Your task to perform on an android device: change the clock display to analog Image 0: 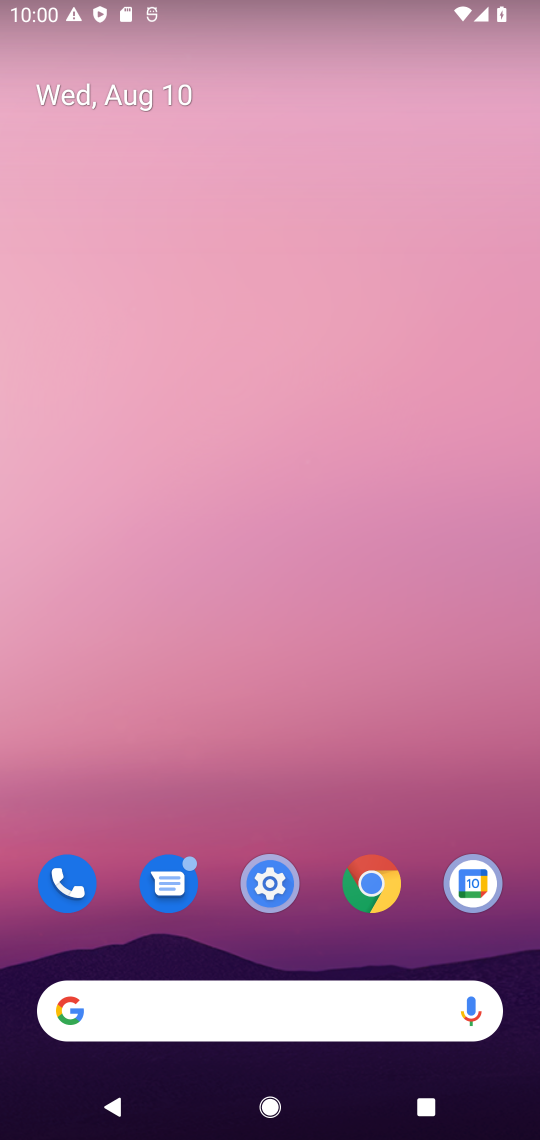
Step 0: press home button
Your task to perform on an android device: change the clock display to analog Image 1: 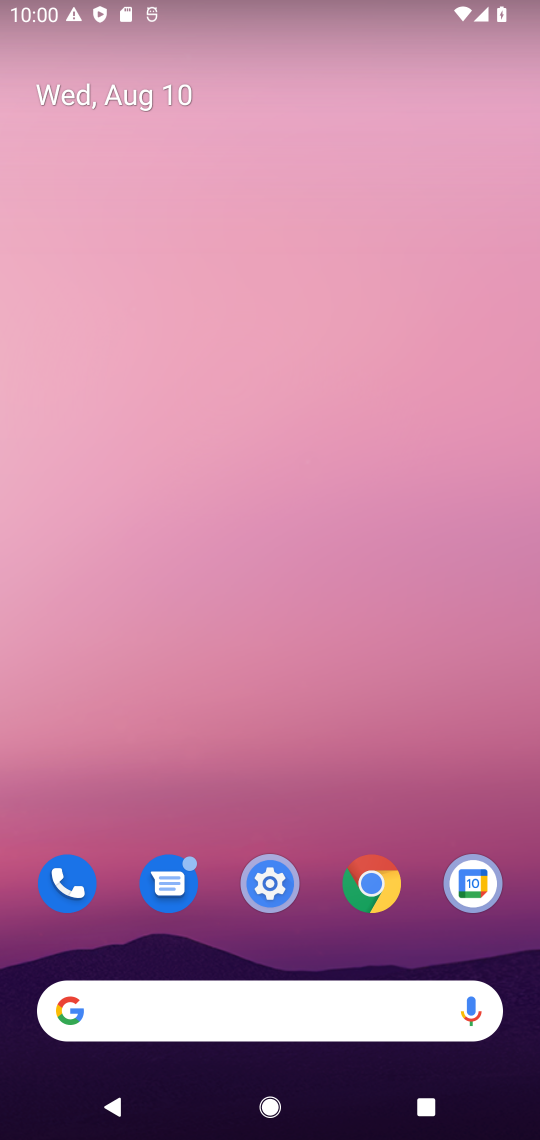
Step 1: press home button
Your task to perform on an android device: change the clock display to analog Image 2: 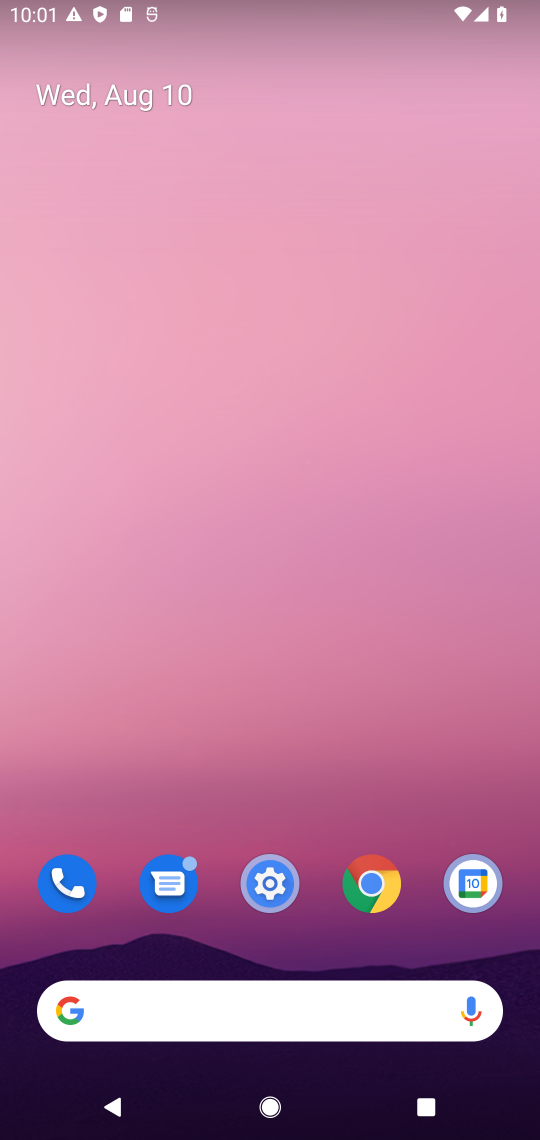
Step 2: drag from (291, 933) to (460, 10)
Your task to perform on an android device: change the clock display to analog Image 3: 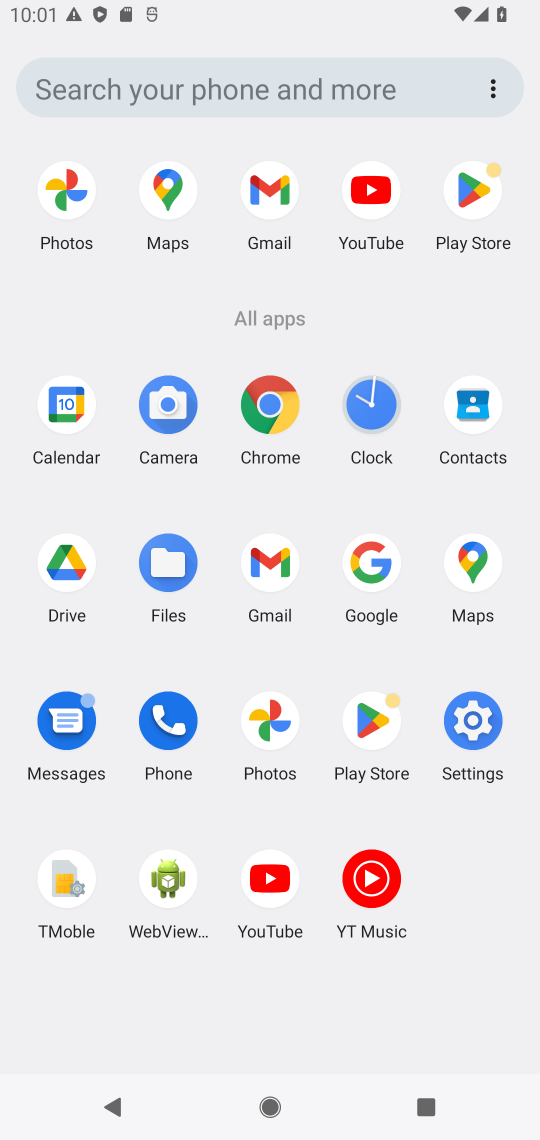
Step 3: click (360, 414)
Your task to perform on an android device: change the clock display to analog Image 4: 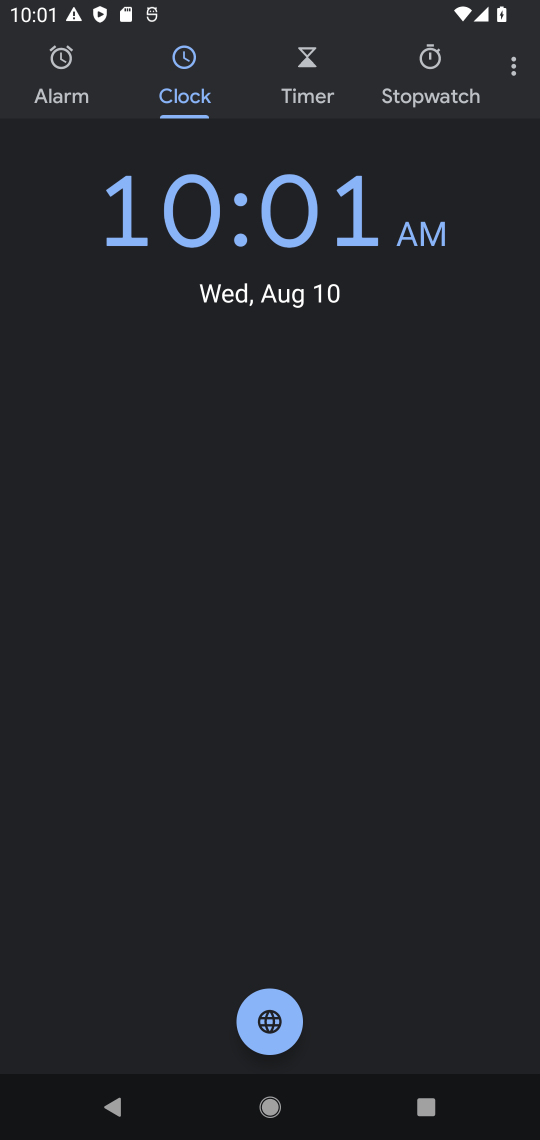
Step 4: click (512, 66)
Your task to perform on an android device: change the clock display to analog Image 5: 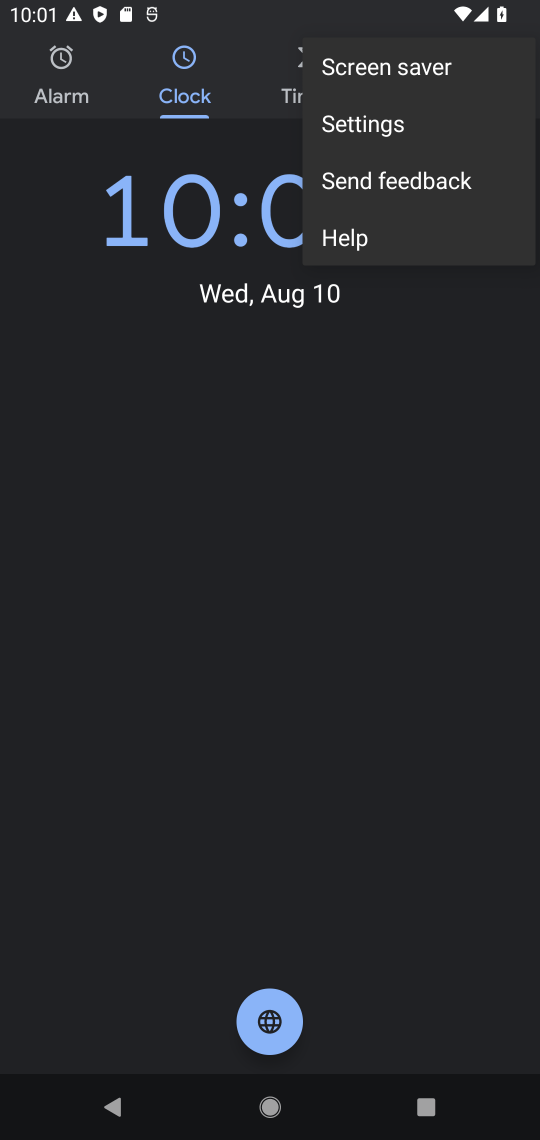
Step 5: click (401, 113)
Your task to perform on an android device: change the clock display to analog Image 6: 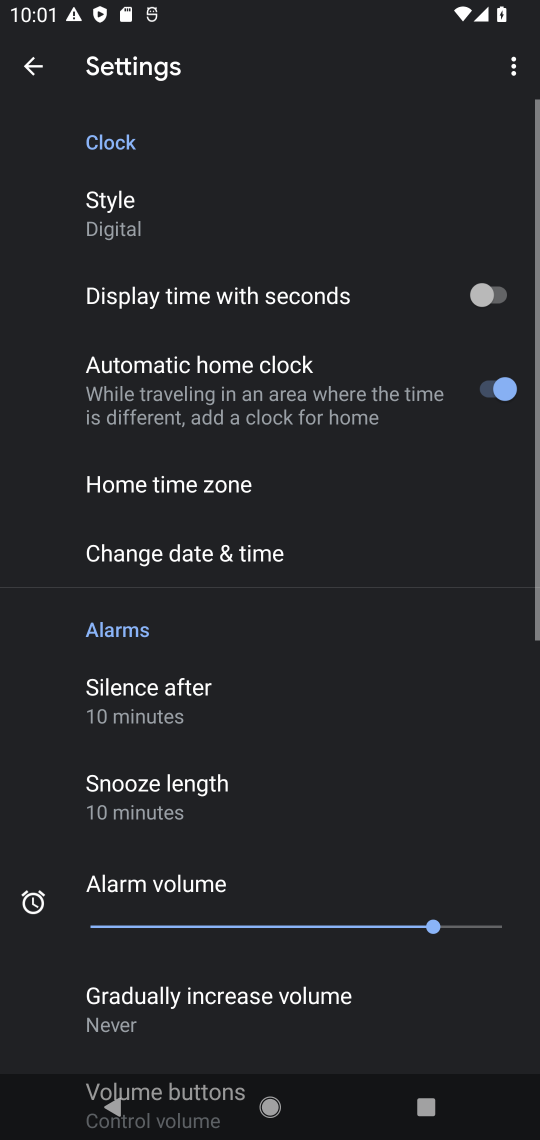
Step 6: click (93, 219)
Your task to perform on an android device: change the clock display to analog Image 7: 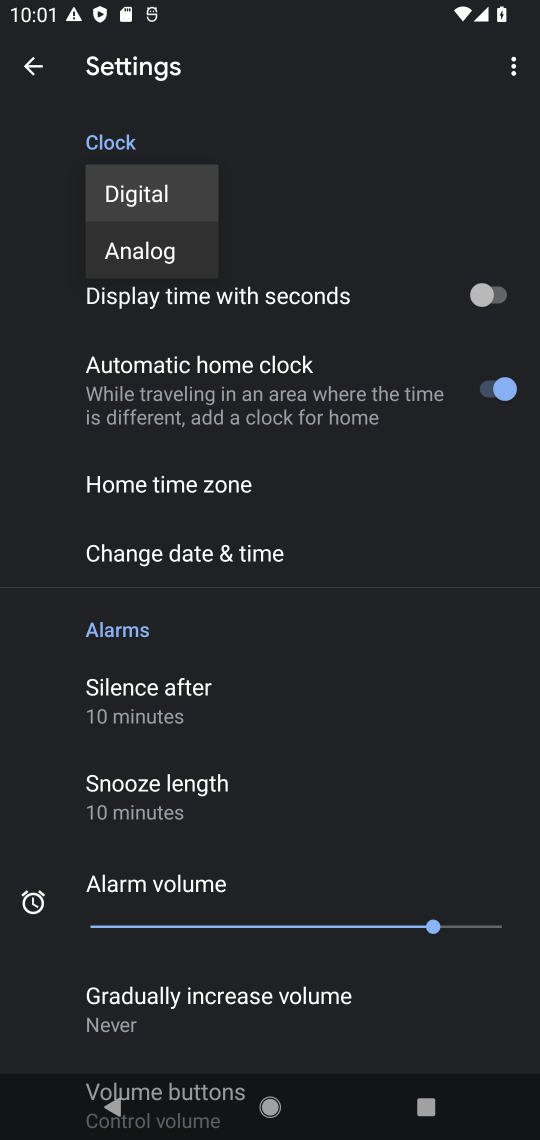
Step 7: click (115, 246)
Your task to perform on an android device: change the clock display to analog Image 8: 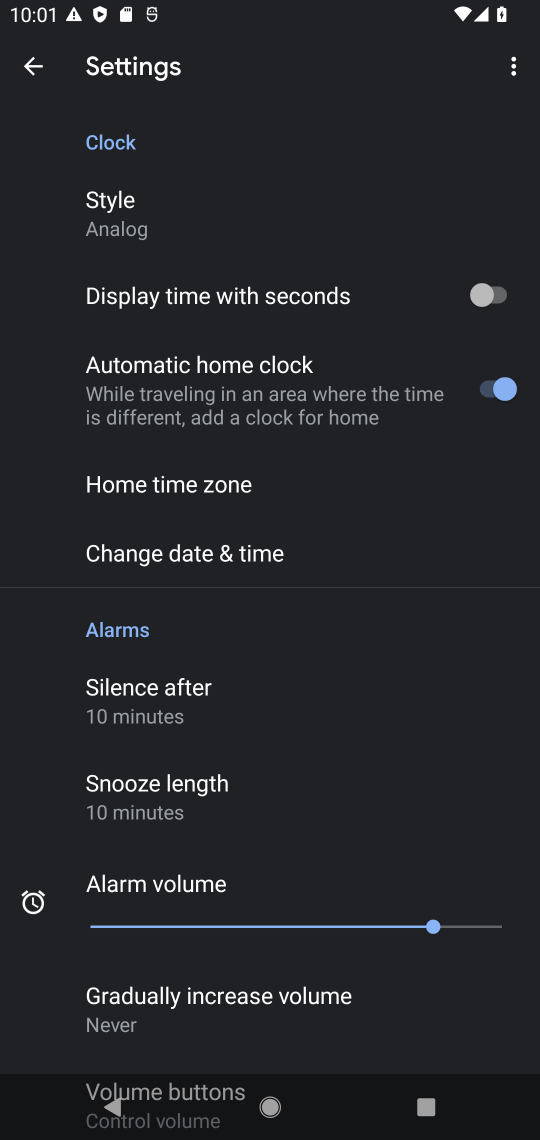
Step 8: task complete